Your task to perform on an android device: toggle translation in the chrome app Image 0: 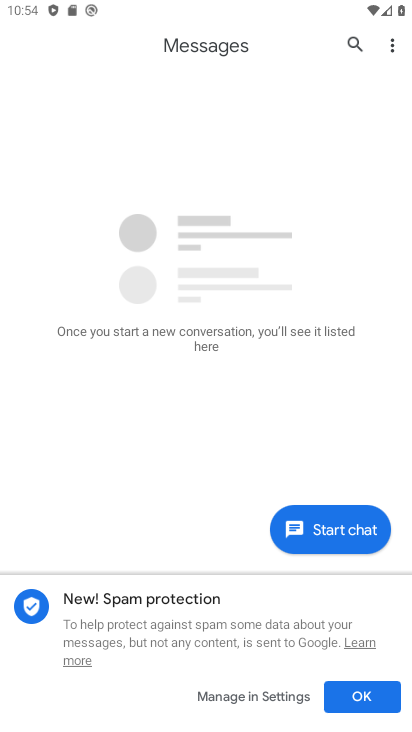
Step 0: press home button
Your task to perform on an android device: toggle translation in the chrome app Image 1: 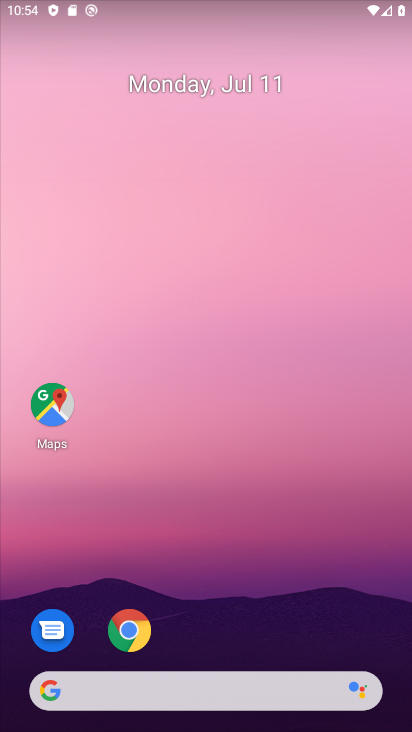
Step 1: drag from (260, 628) to (311, 26)
Your task to perform on an android device: toggle translation in the chrome app Image 2: 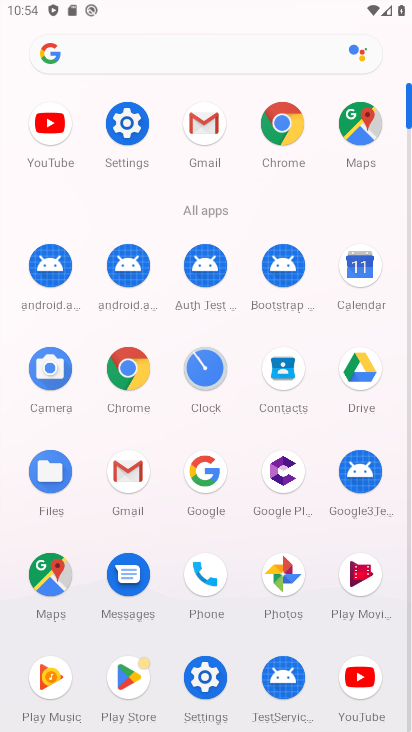
Step 2: click (131, 376)
Your task to perform on an android device: toggle translation in the chrome app Image 3: 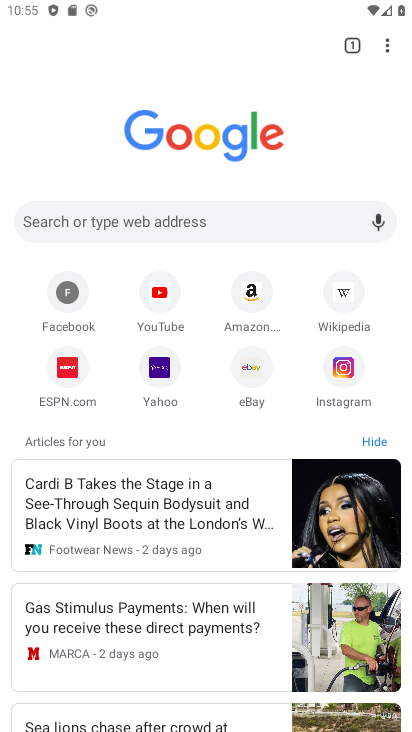
Step 3: click (390, 39)
Your task to perform on an android device: toggle translation in the chrome app Image 4: 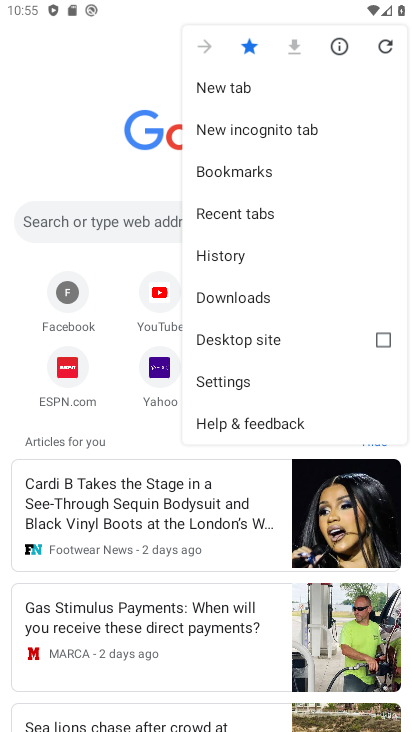
Step 4: click (252, 394)
Your task to perform on an android device: toggle translation in the chrome app Image 5: 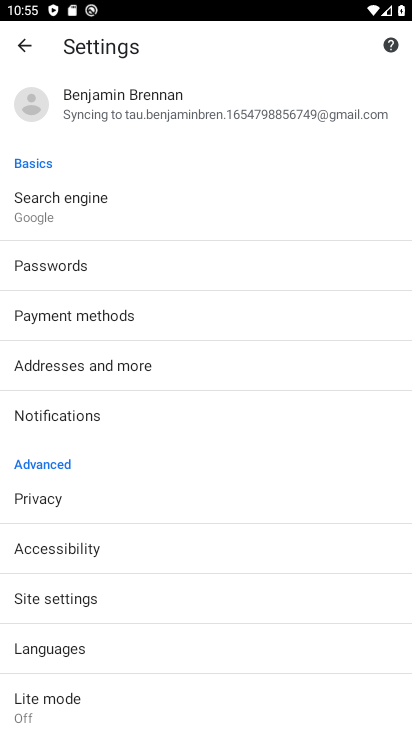
Step 5: click (71, 658)
Your task to perform on an android device: toggle translation in the chrome app Image 6: 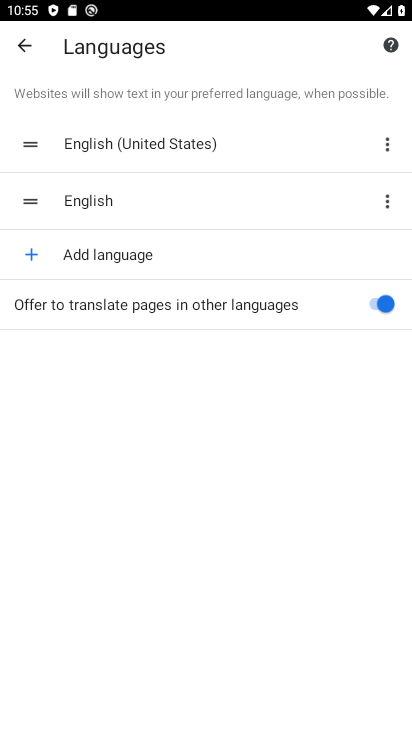
Step 6: click (369, 299)
Your task to perform on an android device: toggle translation in the chrome app Image 7: 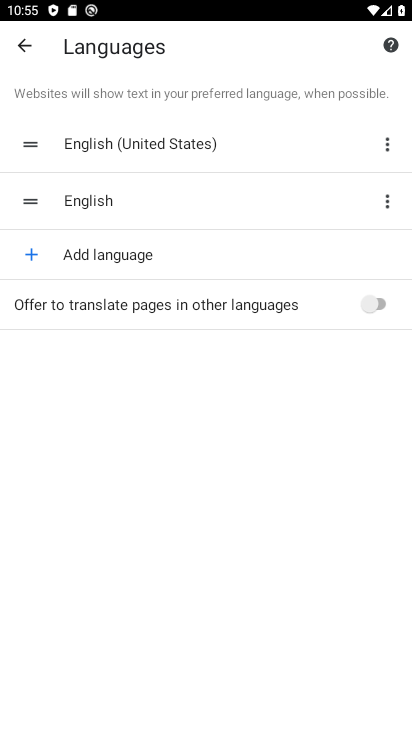
Step 7: task complete